Your task to perform on an android device: Show me recent news Image 0: 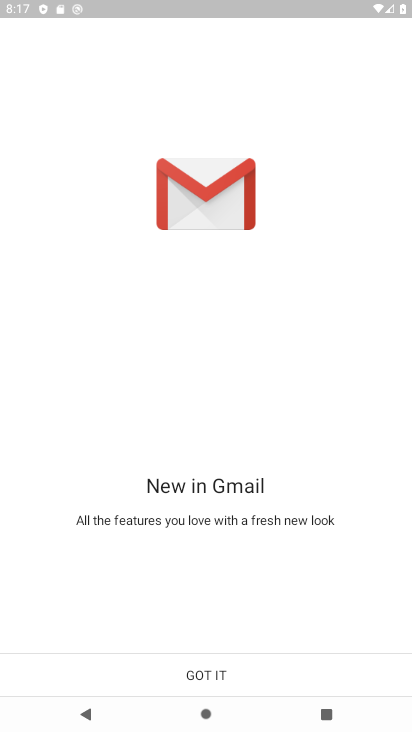
Step 0: press home button
Your task to perform on an android device: Show me recent news Image 1: 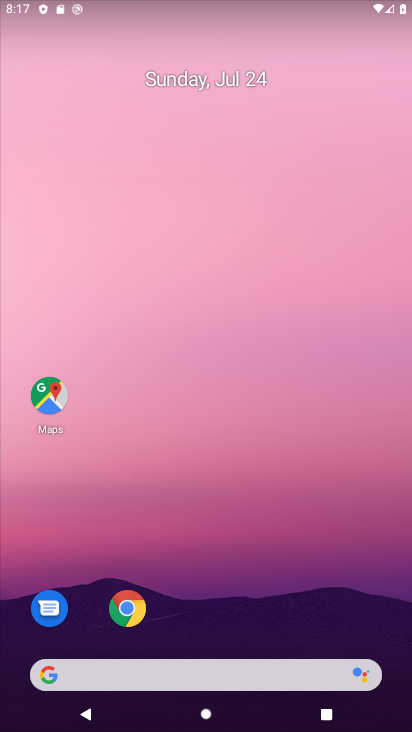
Step 1: task complete